Your task to perform on an android device: Open ESPN.com Image 0: 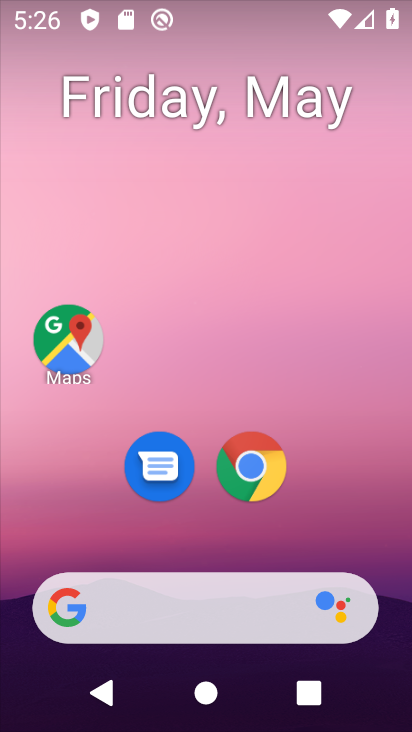
Step 0: drag from (337, 454) to (236, 35)
Your task to perform on an android device: Open ESPN.com Image 1: 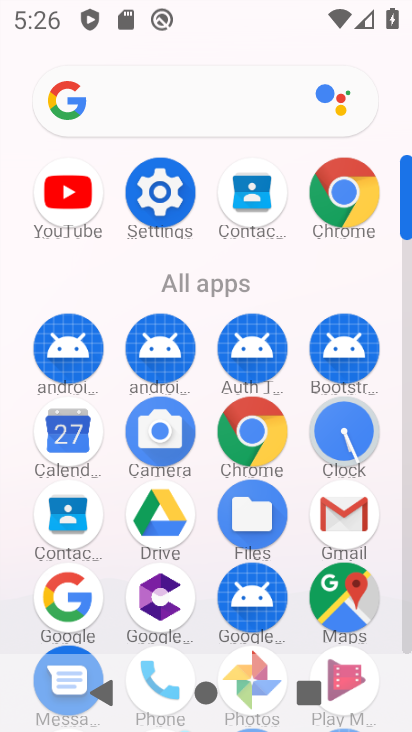
Step 1: drag from (8, 562) to (43, 236)
Your task to perform on an android device: Open ESPN.com Image 2: 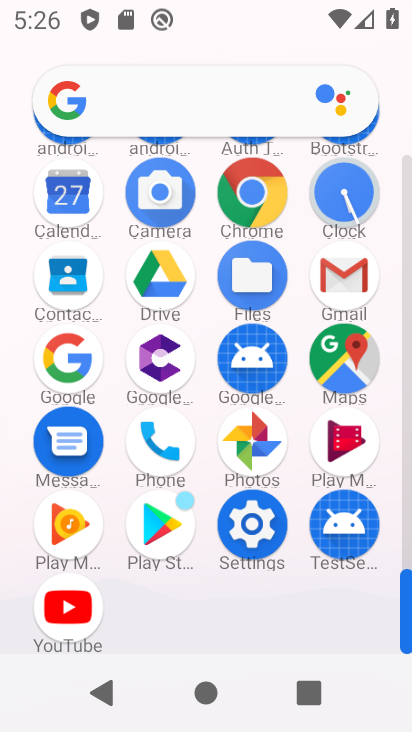
Step 2: click (254, 186)
Your task to perform on an android device: Open ESPN.com Image 3: 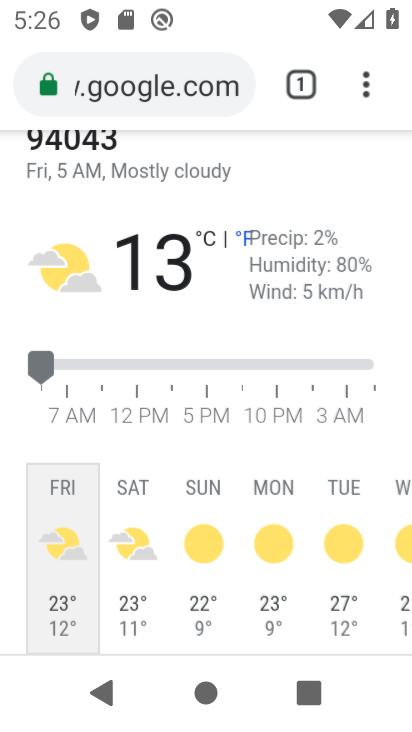
Step 3: click (196, 82)
Your task to perform on an android device: Open ESPN.com Image 4: 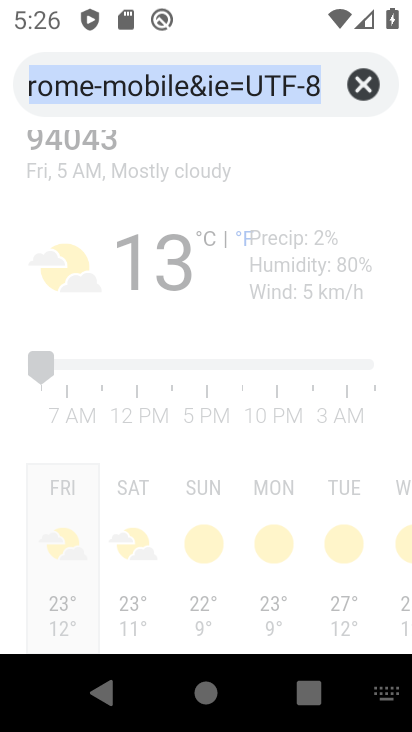
Step 4: click (369, 88)
Your task to perform on an android device: Open ESPN.com Image 5: 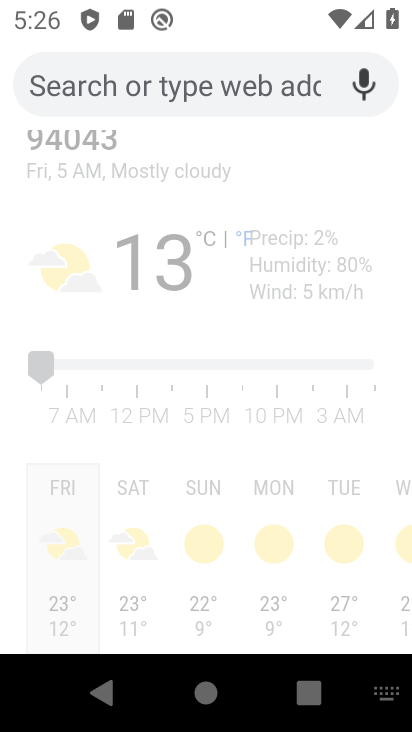
Step 5: click (140, 86)
Your task to perform on an android device: Open ESPN.com Image 6: 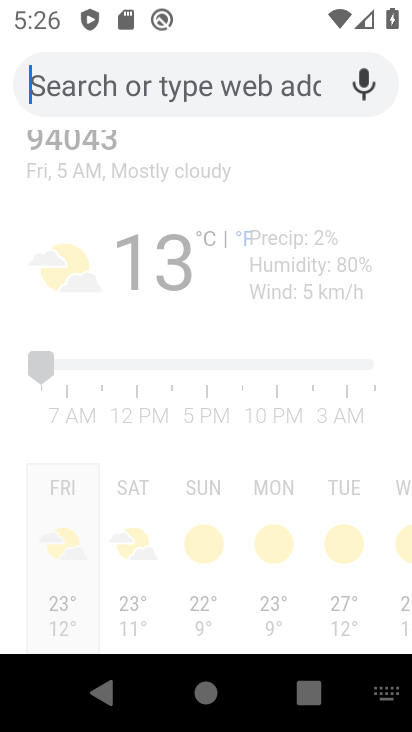
Step 6: type "ESPN.com"
Your task to perform on an android device: Open ESPN.com Image 7: 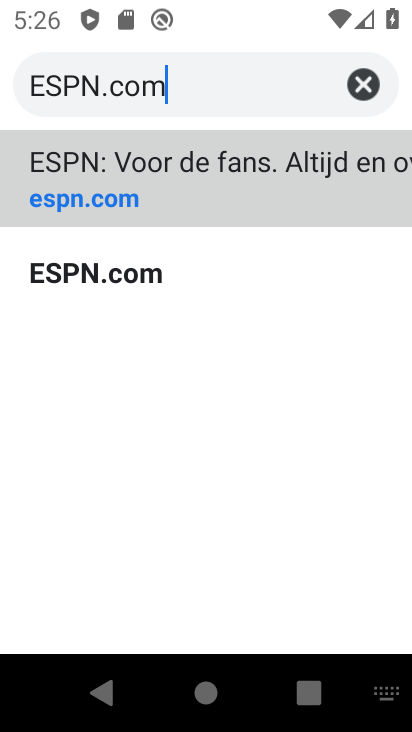
Step 7: type ""
Your task to perform on an android device: Open ESPN.com Image 8: 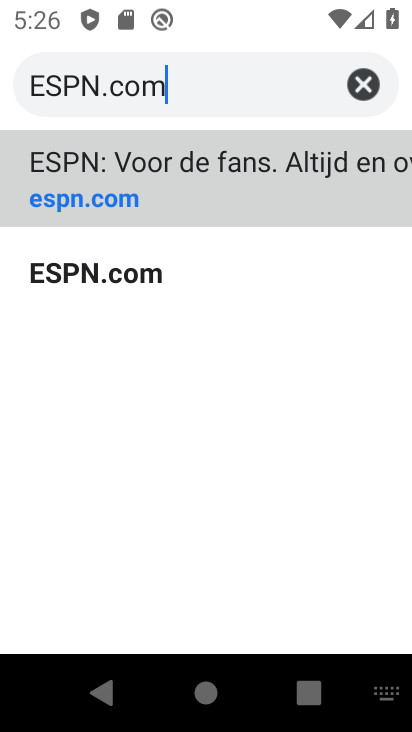
Step 8: click (155, 163)
Your task to perform on an android device: Open ESPN.com Image 9: 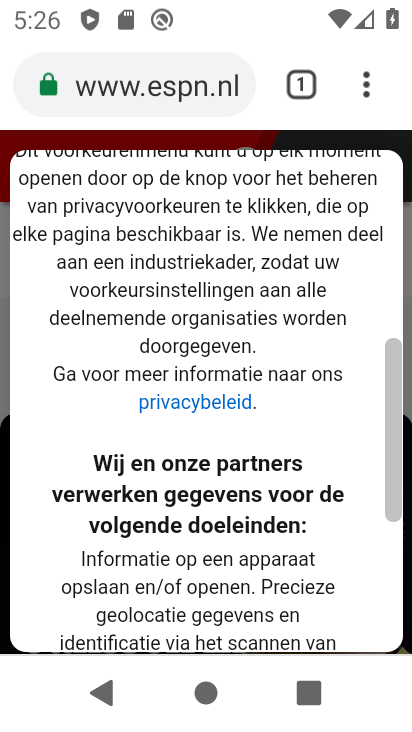
Step 9: task complete